Your task to perform on an android device: empty trash in google photos Image 0: 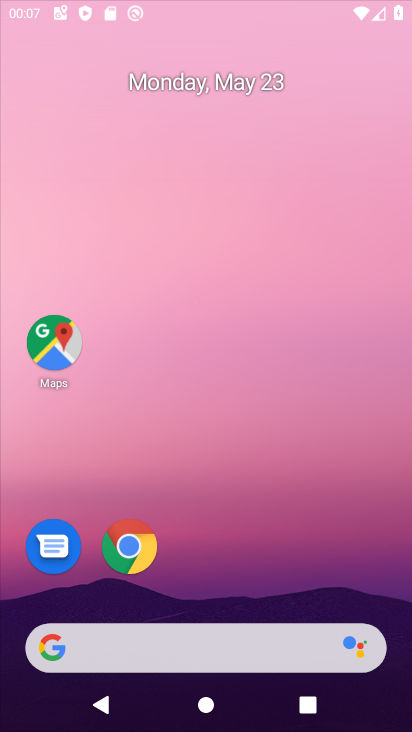
Step 0: drag from (173, 504) to (200, 165)
Your task to perform on an android device: empty trash in google photos Image 1: 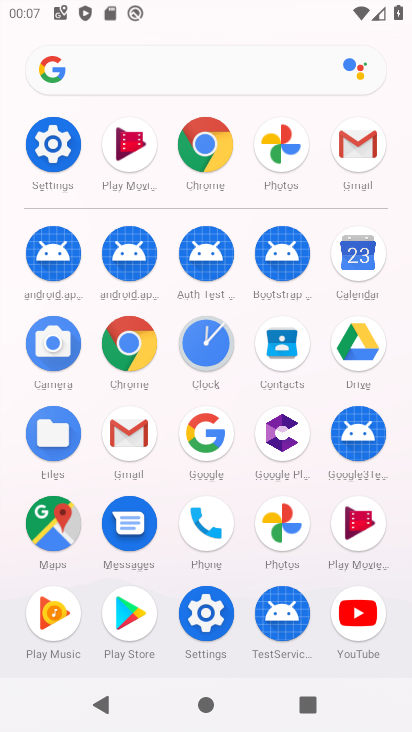
Step 1: click (273, 524)
Your task to perform on an android device: empty trash in google photos Image 2: 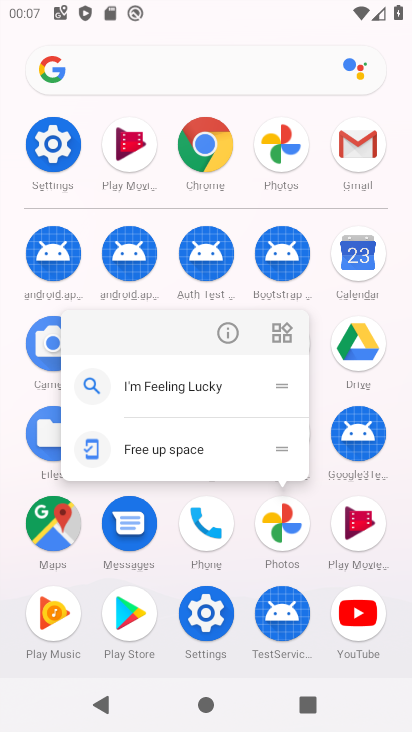
Step 2: click (229, 327)
Your task to perform on an android device: empty trash in google photos Image 3: 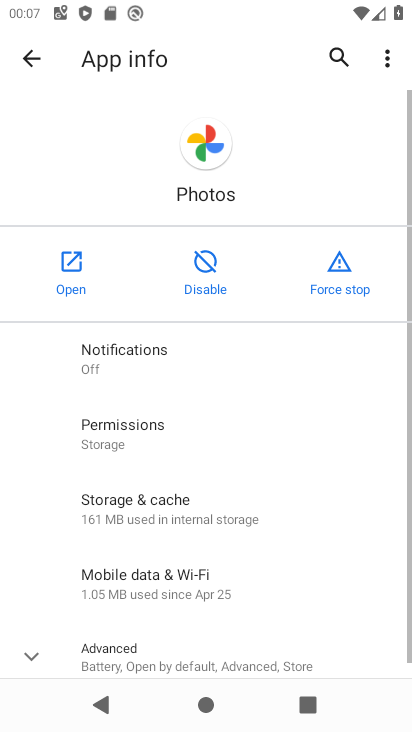
Step 3: click (75, 265)
Your task to perform on an android device: empty trash in google photos Image 4: 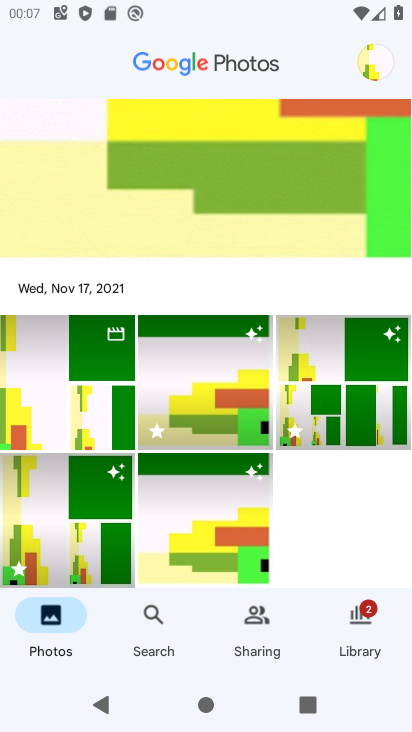
Step 4: click (71, 368)
Your task to perform on an android device: empty trash in google photos Image 5: 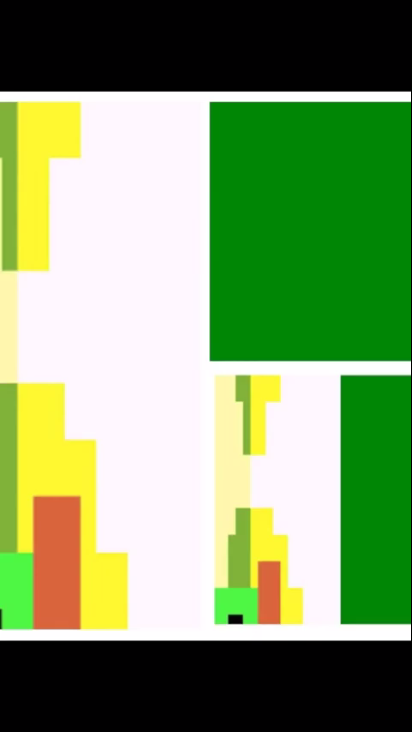
Step 5: drag from (356, 362) to (18, 342)
Your task to perform on an android device: empty trash in google photos Image 6: 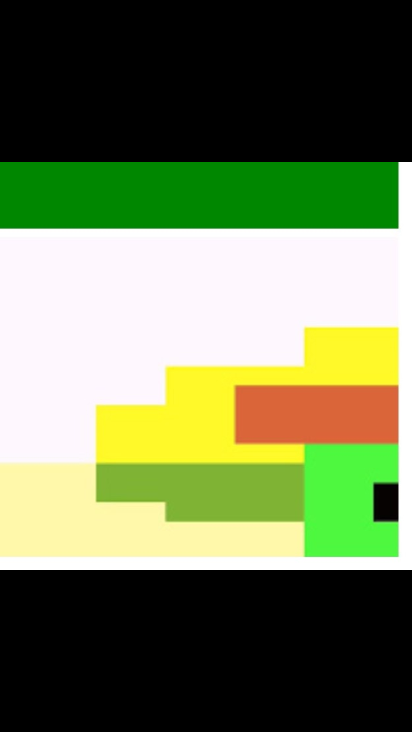
Step 6: drag from (355, 405) to (5, 353)
Your task to perform on an android device: empty trash in google photos Image 7: 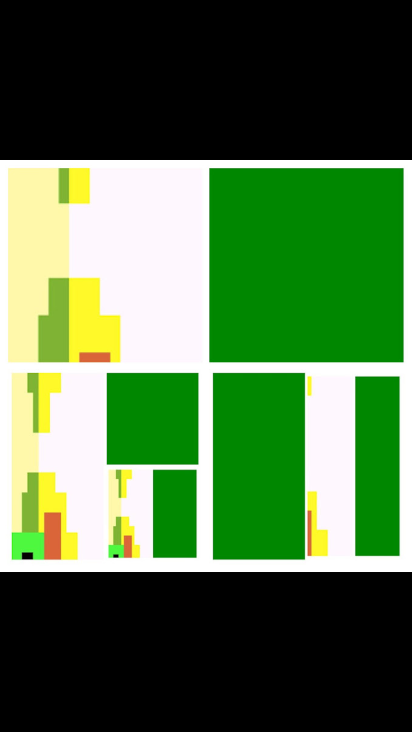
Step 7: drag from (354, 404) to (15, 383)
Your task to perform on an android device: empty trash in google photos Image 8: 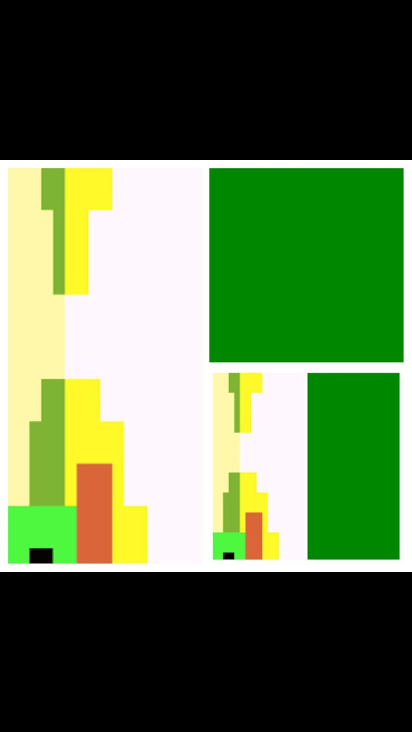
Step 8: press back button
Your task to perform on an android device: empty trash in google photos Image 9: 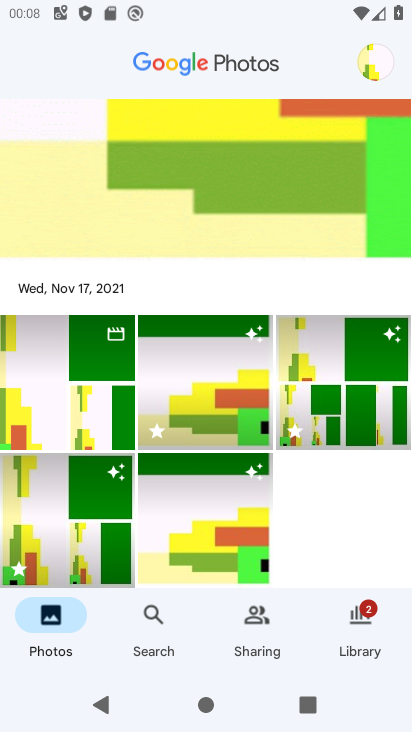
Step 9: click (363, 626)
Your task to perform on an android device: empty trash in google photos Image 10: 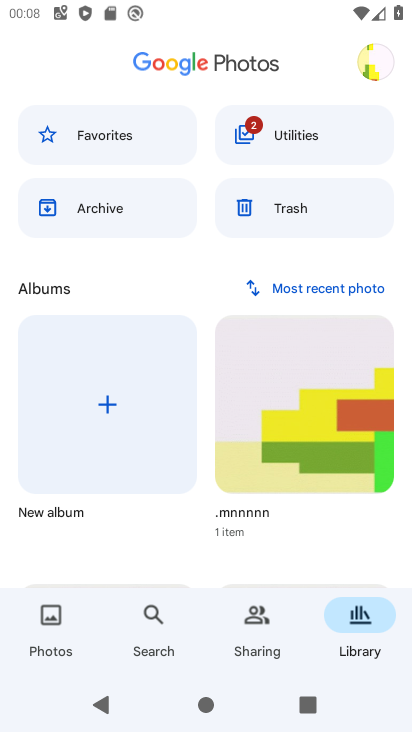
Step 10: click (290, 219)
Your task to perform on an android device: empty trash in google photos Image 11: 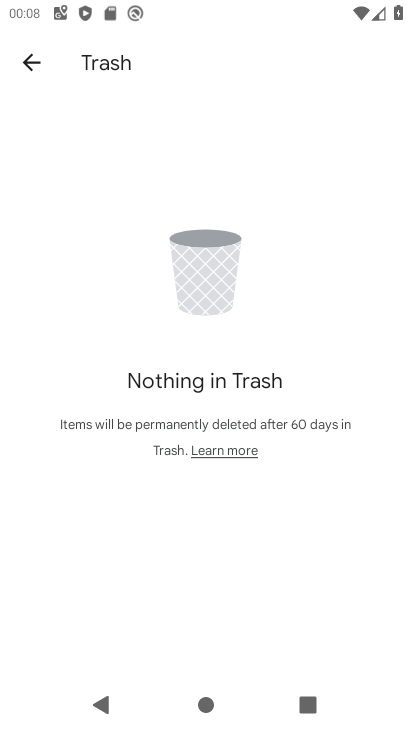
Step 11: task complete